Your task to perform on an android device: Search for "lg ultragear" on target.com, select the first entry, add it to the cart, then select checkout. Image 0: 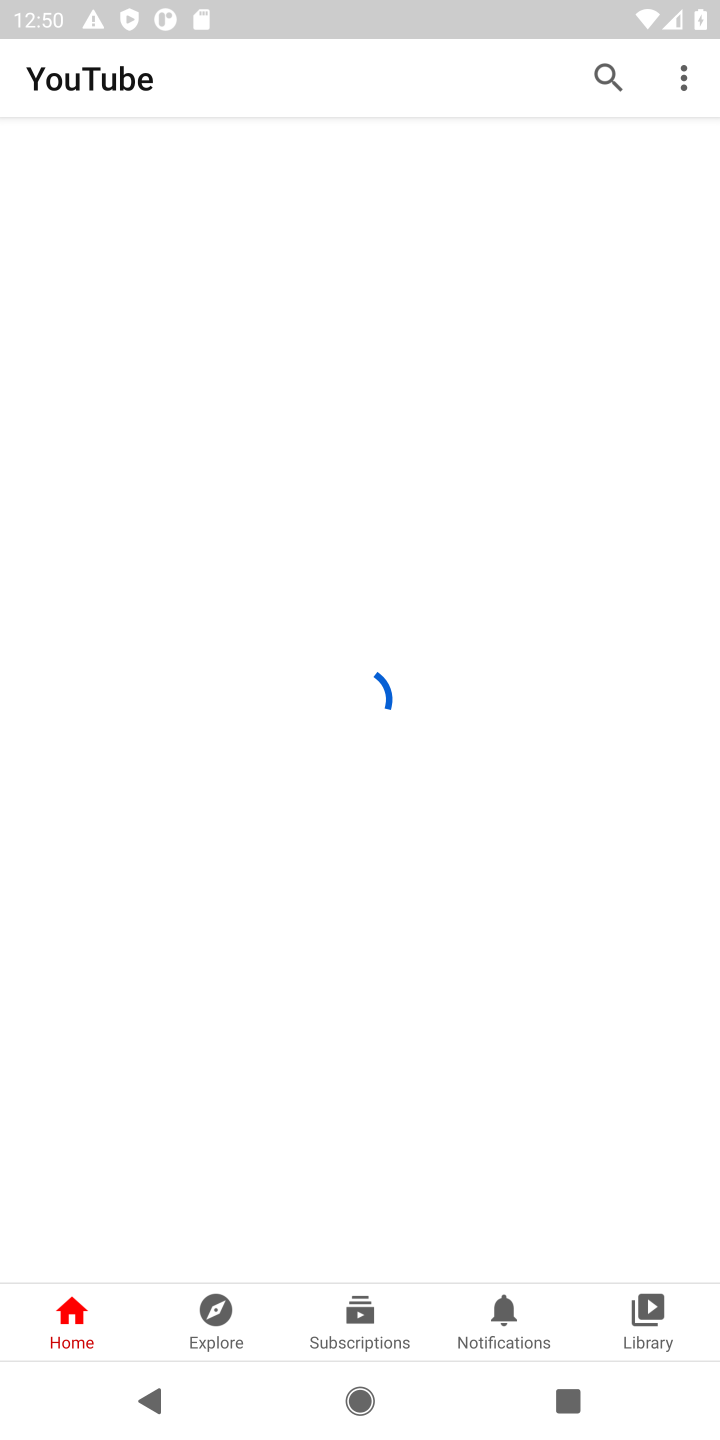
Step 0: press home button
Your task to perform on an android device: Search for "lg ultragear" on target.com, select the first entry, add it to the cart, then select checkout. Image 1: 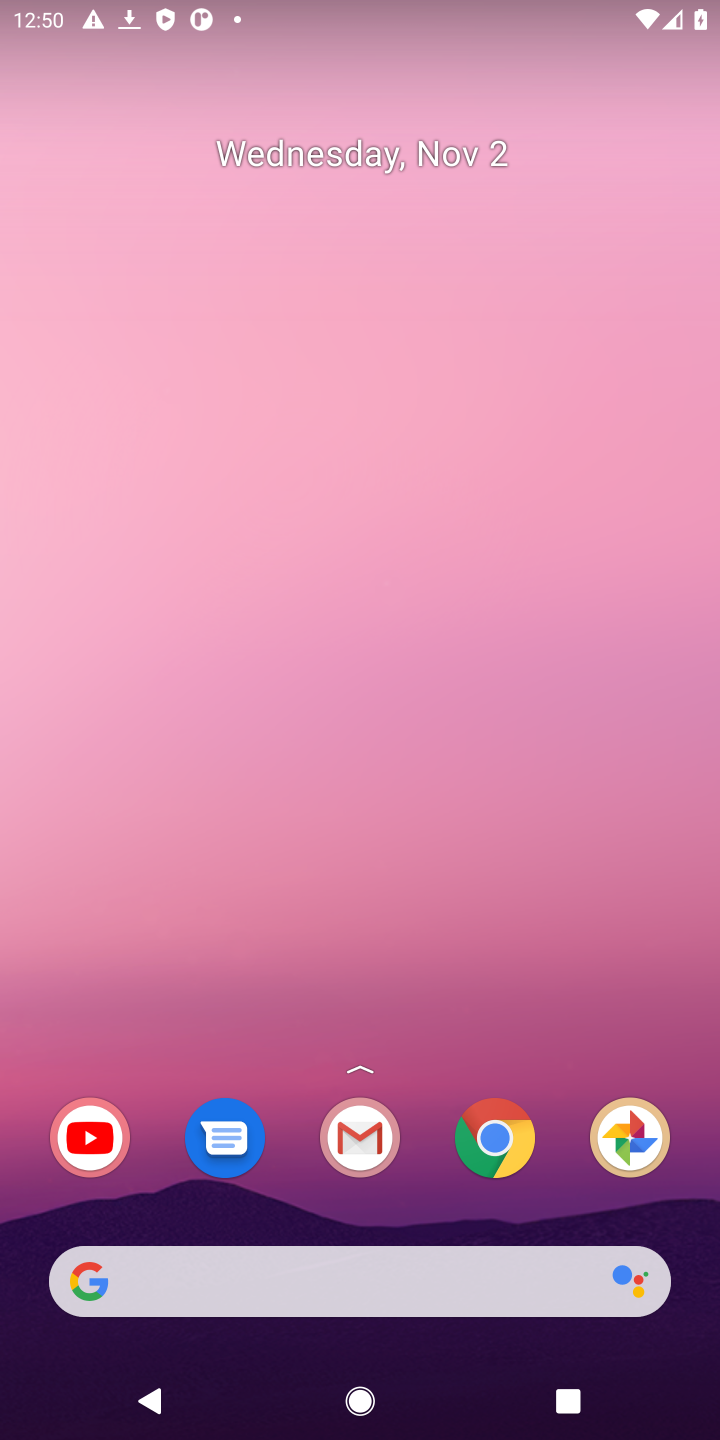
Step 1: press home button
Your task to perform on an android device: Search for "lg ultragear" on target.com, select the first entry, add it to the cart, then select checkout. Image 2: 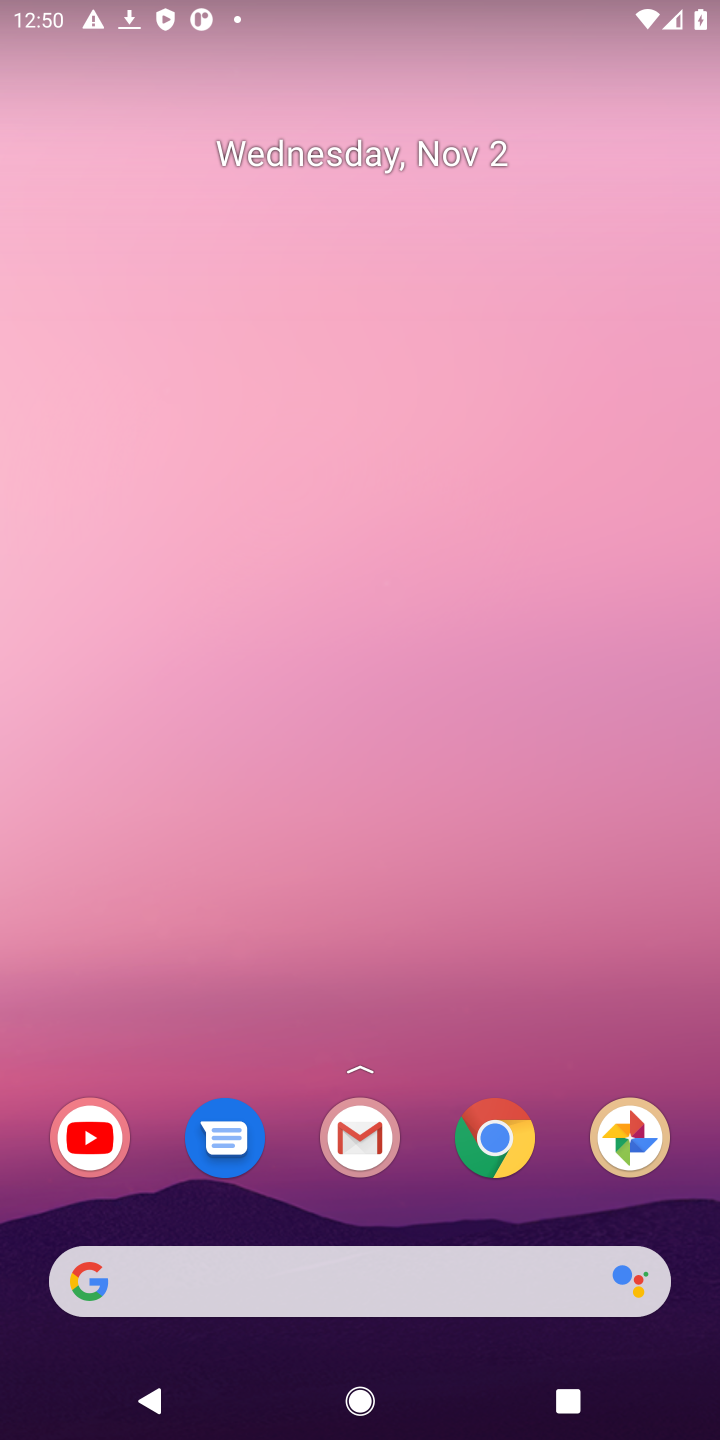
Step 2: click (134, 1281)
Your task to perform on an android device: Search for "lg ultragear" on target.com, select the first entry, add it to the cart, then select checkout. Image 3: 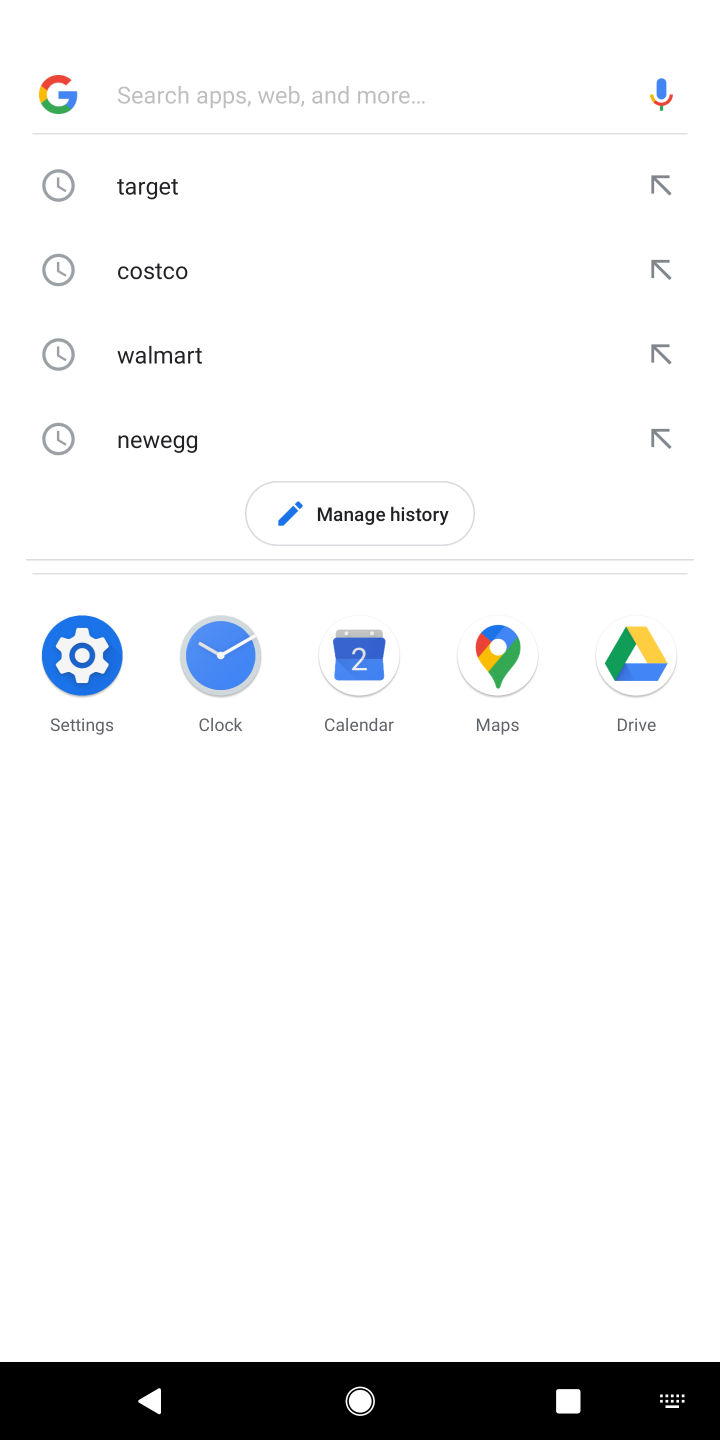
Step 3: type "target.com"
Your task to perform on an android device: Search for "lg ultragear" on target.com, select the first entry, add it to the cart, then select checkout. Image 4: 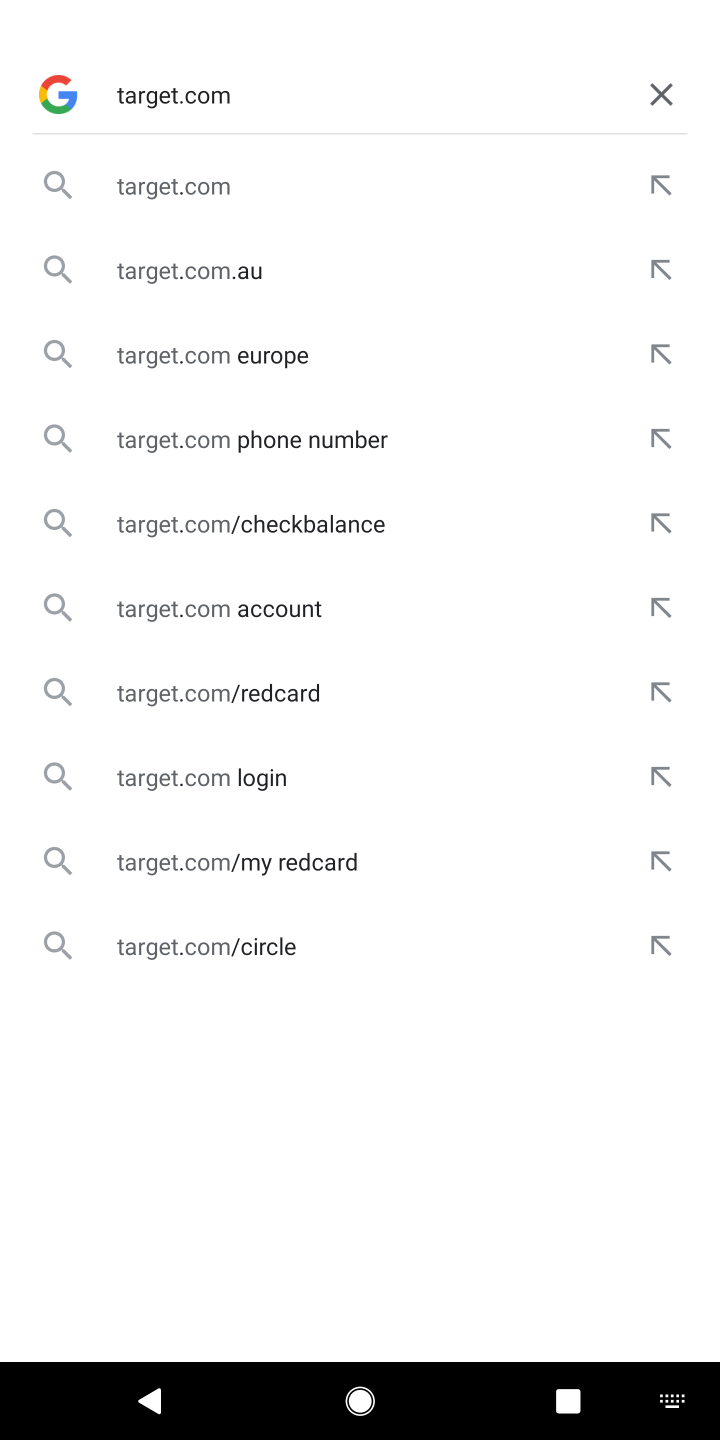
Step 4: press enter
Your task to perform on an android device: Search for "lg ultragear" on target.com, select the first entry, add it to the cart, then select checkout. Image 5: 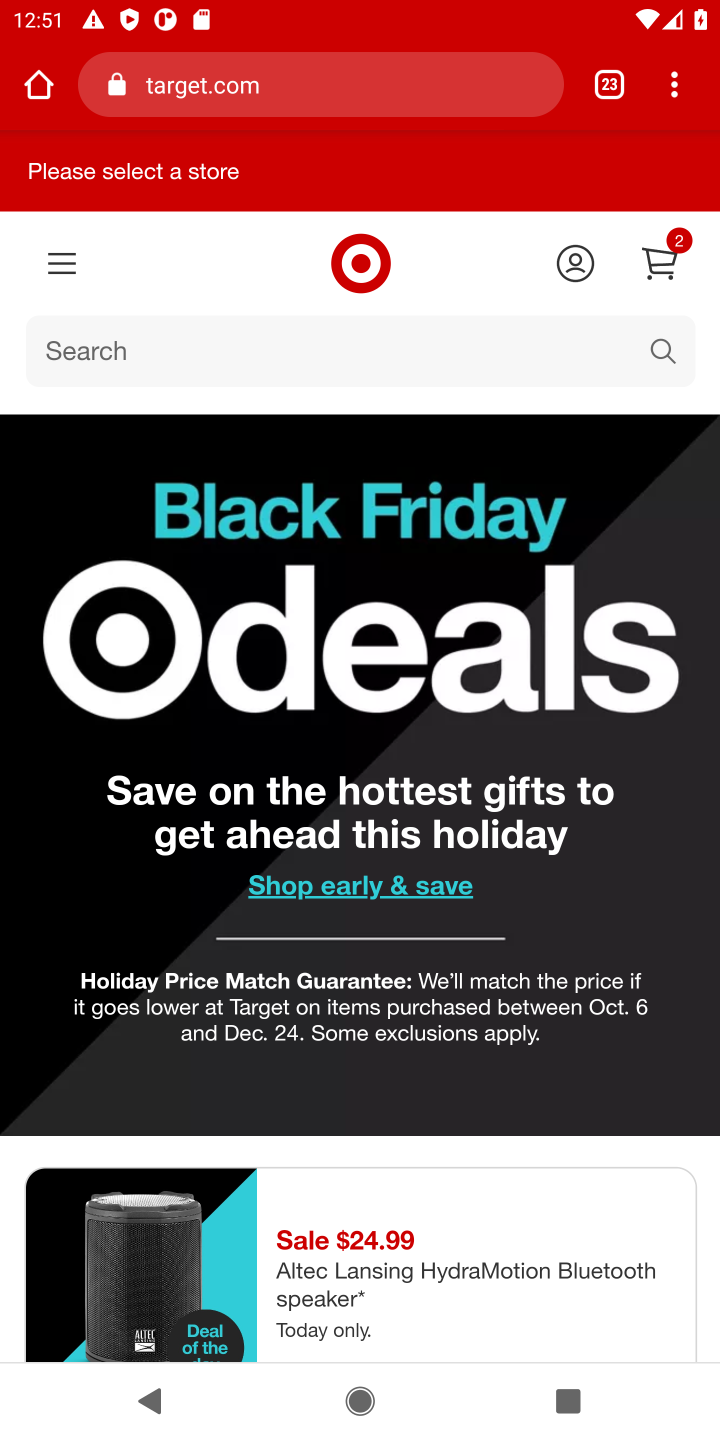
Step 5: click (125, 355)
Your task to perform on an android device: Search for "lg ultragear" on target.com, select the first entry, add it to the cart, then select checkout. Image 6: 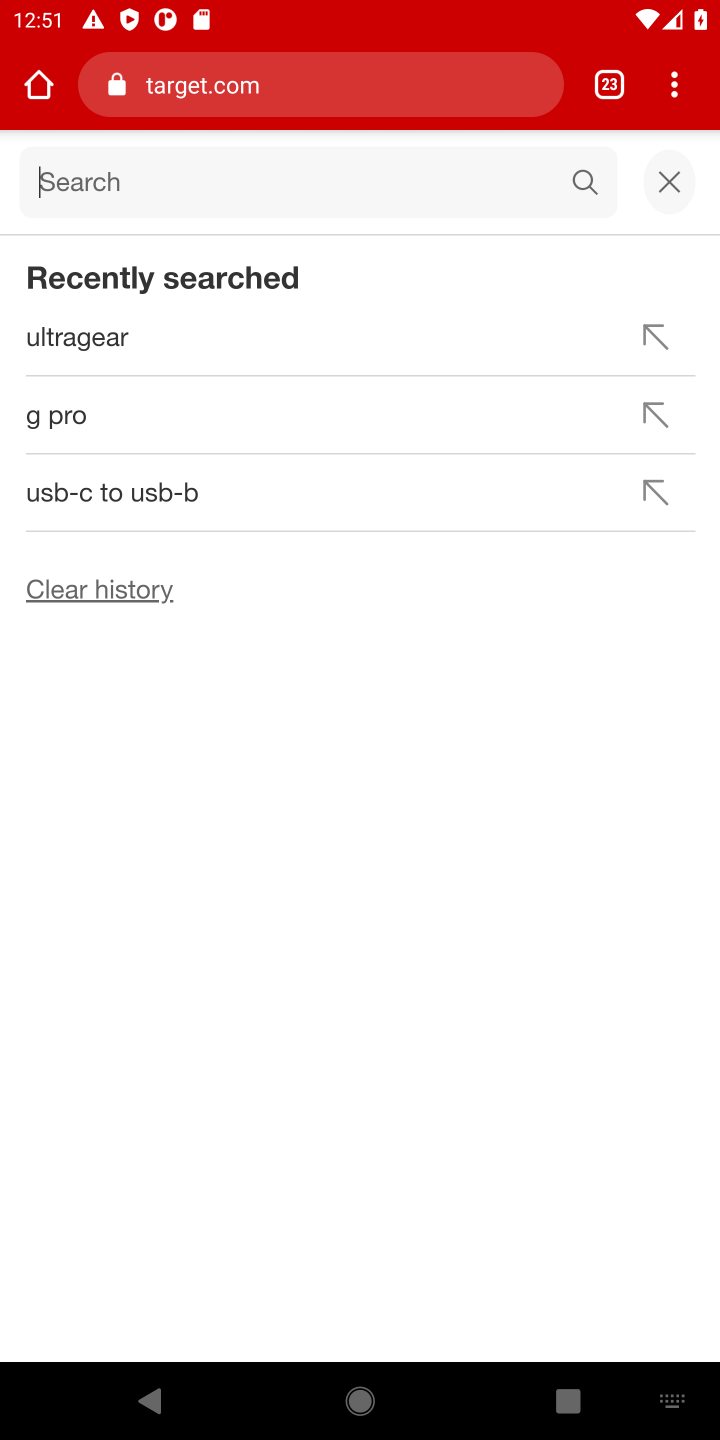
Step 6: type "lg ultragear"
Your task to perform on an android device: Search for "lg ultragear" on target.com, select the first entry, add it to the cart, then select checkout. Image 7: 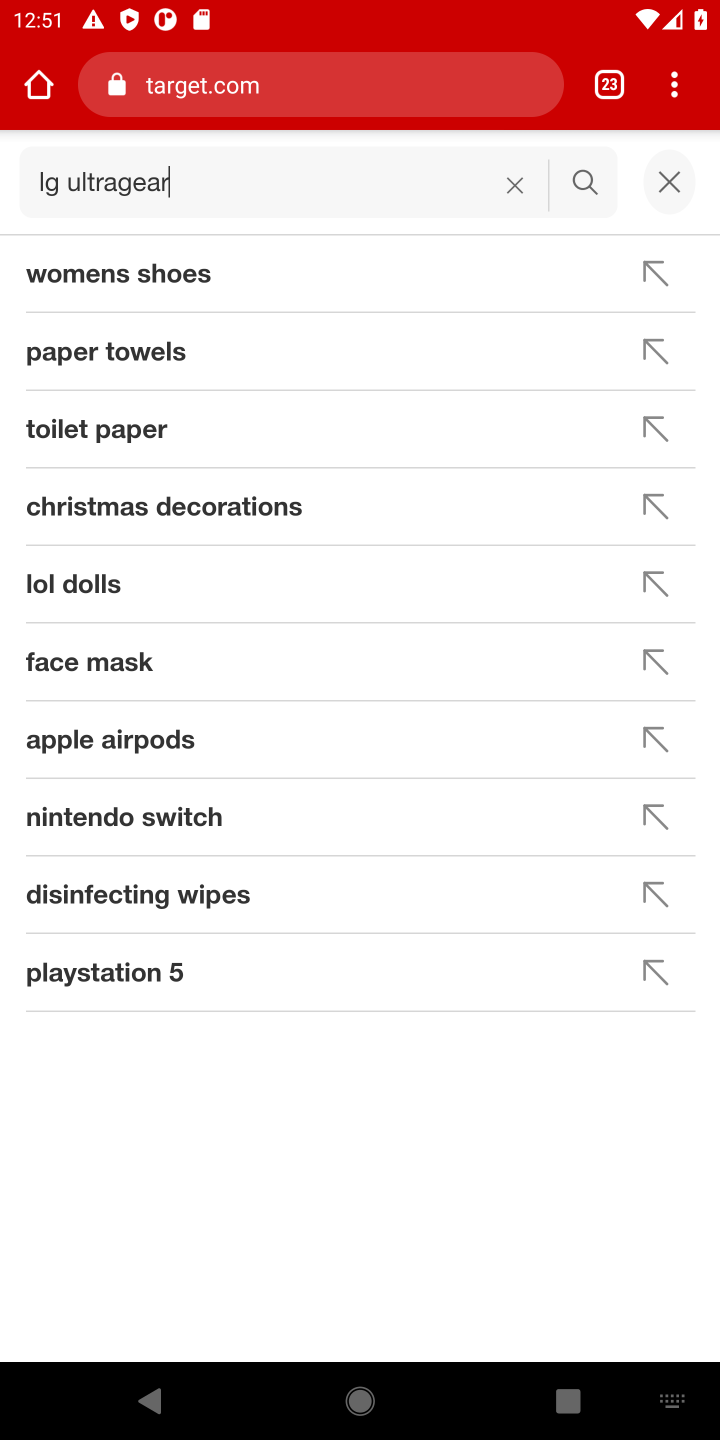
Step 7: press enter
Your task to perform on an android device: Search for "lg ultragear" on target.com, select the first entry, add it to the cart, then select checkout. Image 8: 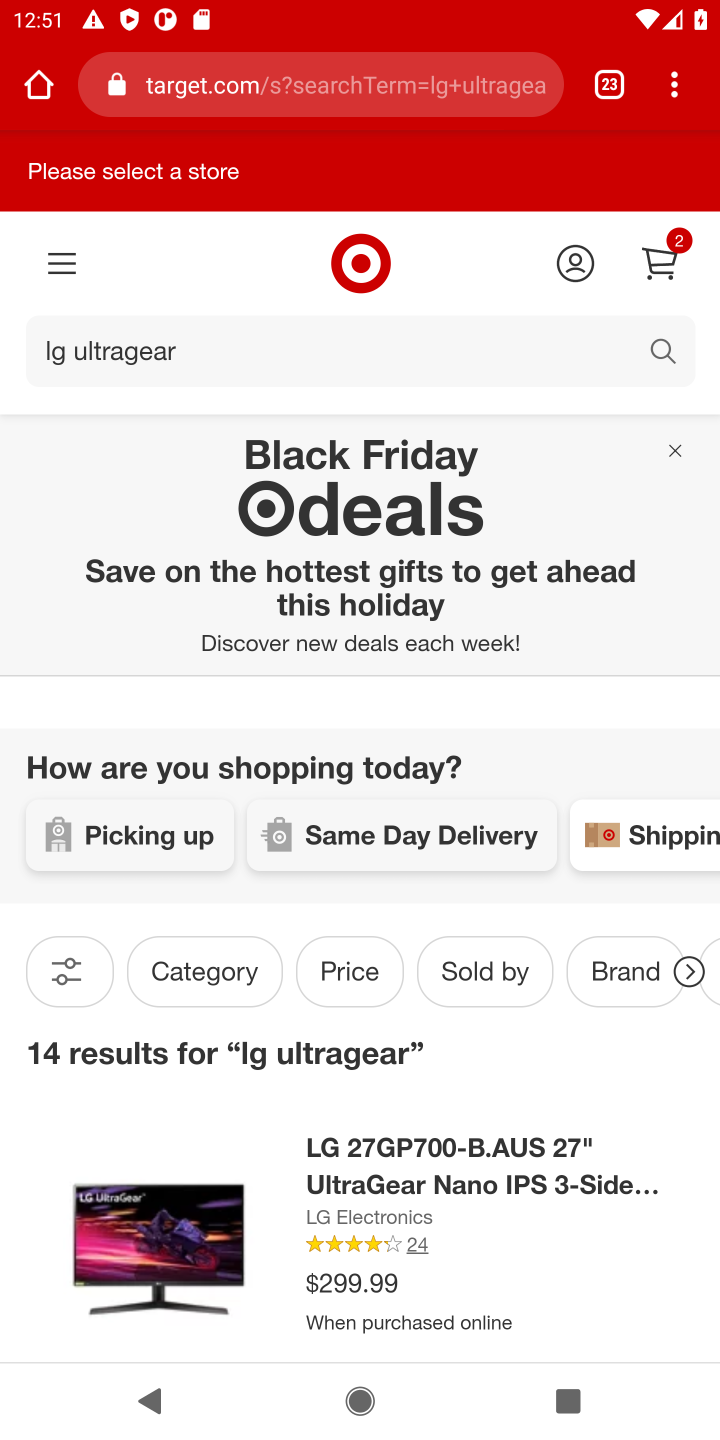
Step 8: drag from (463, 1183) to (453, 693)
Your task to perform on an android device: Search for "lg ultragear" on target.com, select the first entry, add it to the cart, then select checkout. Image 9: 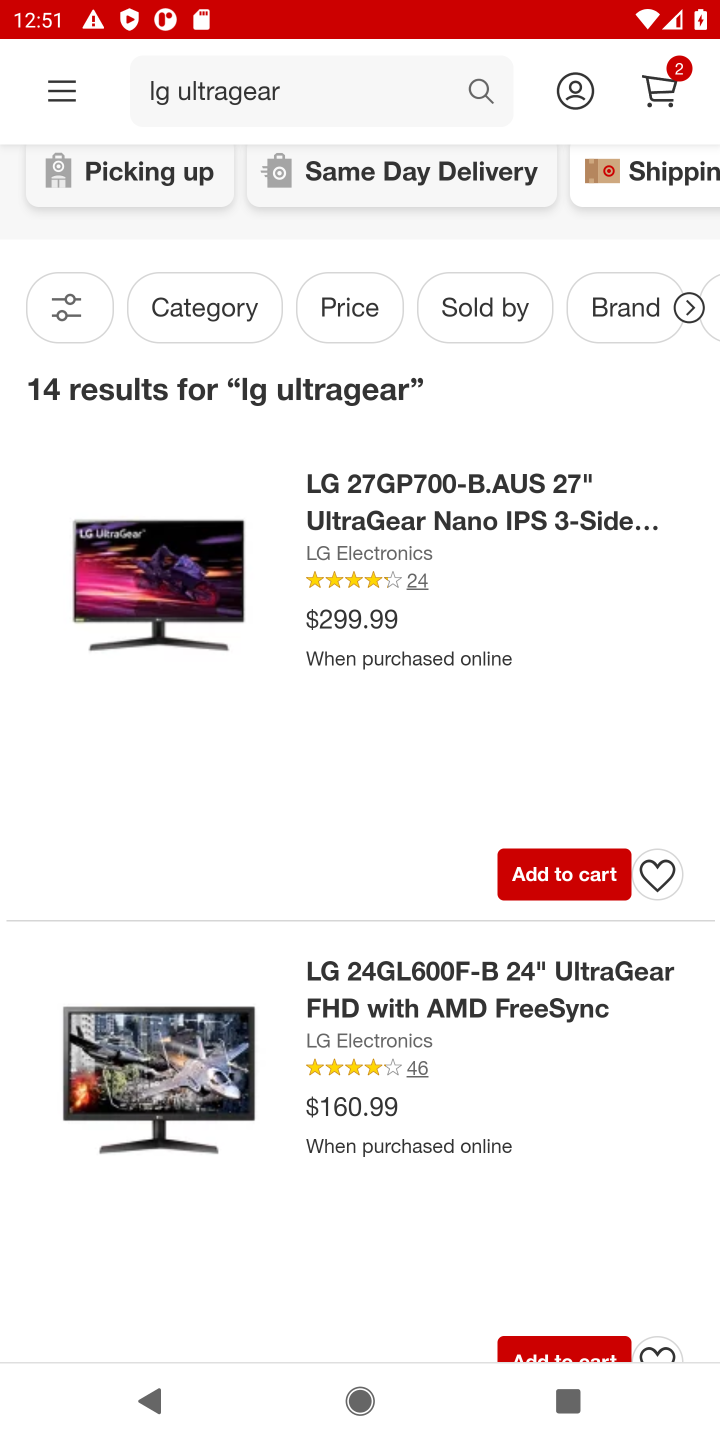
Step 9: drag from (405, 1162) to (403, 847)
Your task to perform on an android device: Search for "lg ultragear" on target.com, select the first entry, add it to the cart, then select checkout. Image 10: 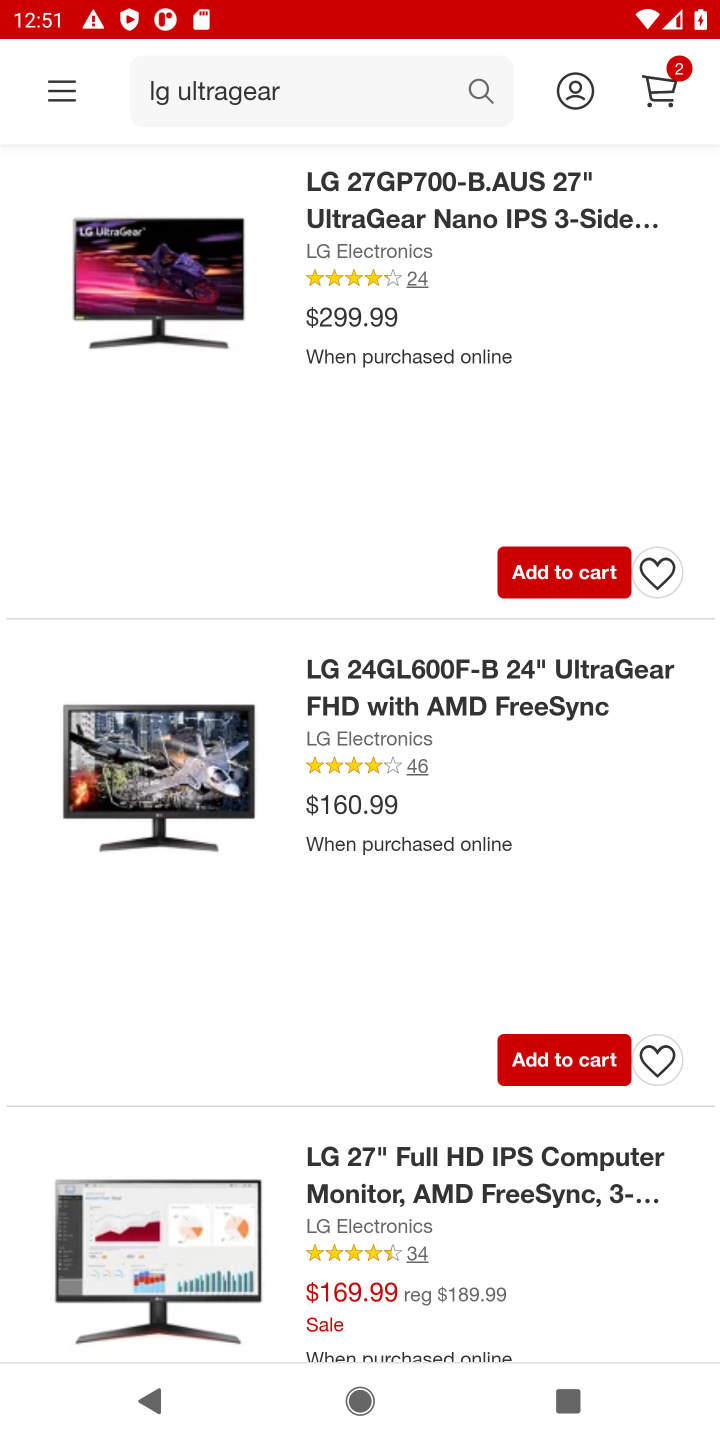
Step 10: click (537, 577)
Your task to perform on an android device: Search for "lg ultragear" on target.com, select the first entry, add it to the cart, then select checkout. Image 11: 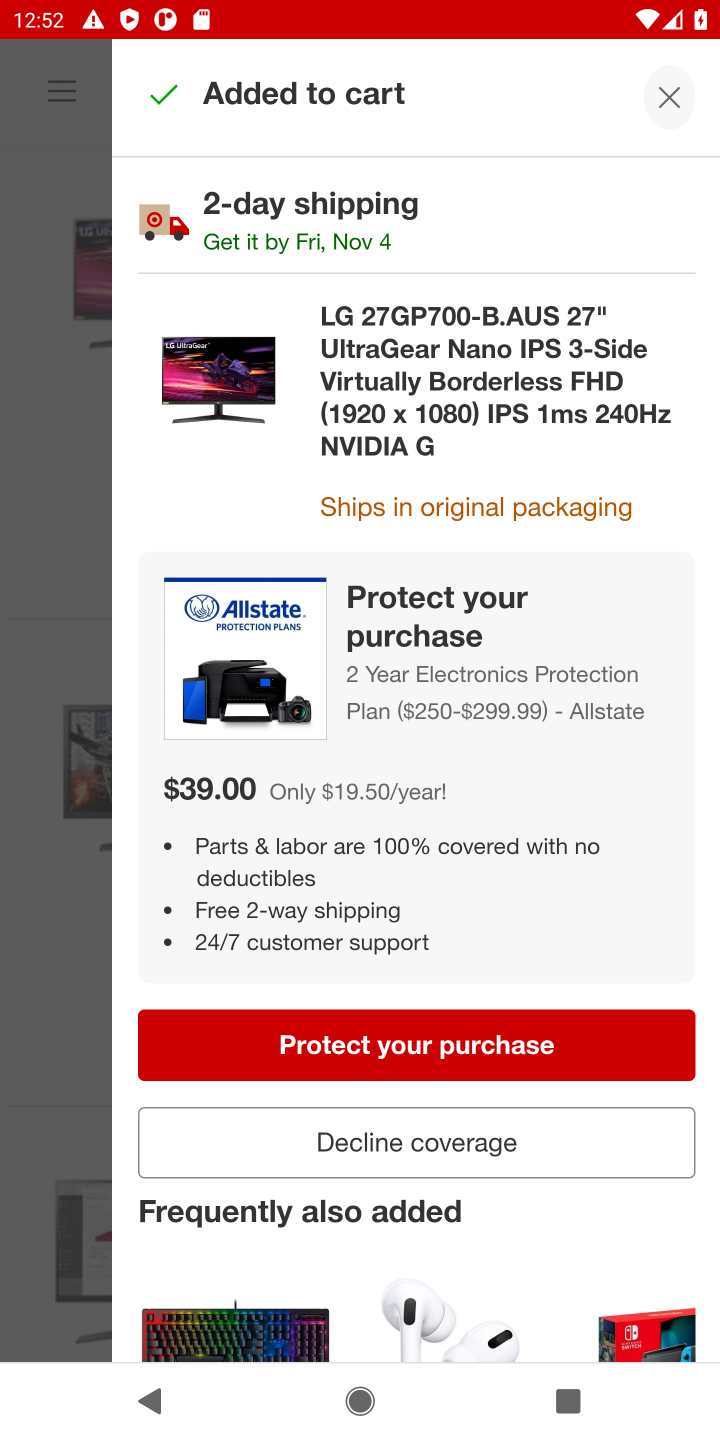
Step 11: click (508, 1049)
Your task to perform on an android device: Search for "lg ultragear" on target.com, select the first entry, add it to the cart, then select checkout. Image 12: 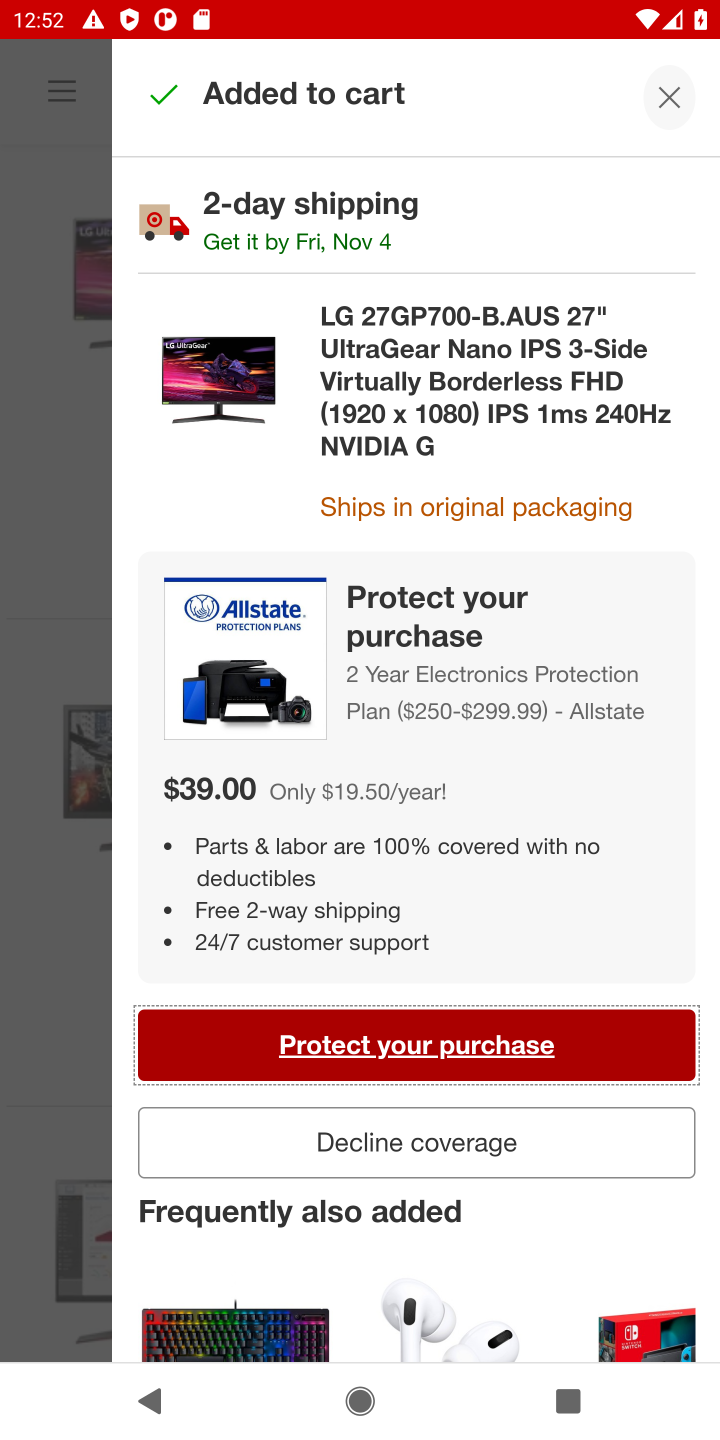
Step 12: click (508, 1049)
Your task to perform on an android device: Search for "lg ultragear" on target.com, select the first entry, add it to the cart, then select checkout. Image 13: 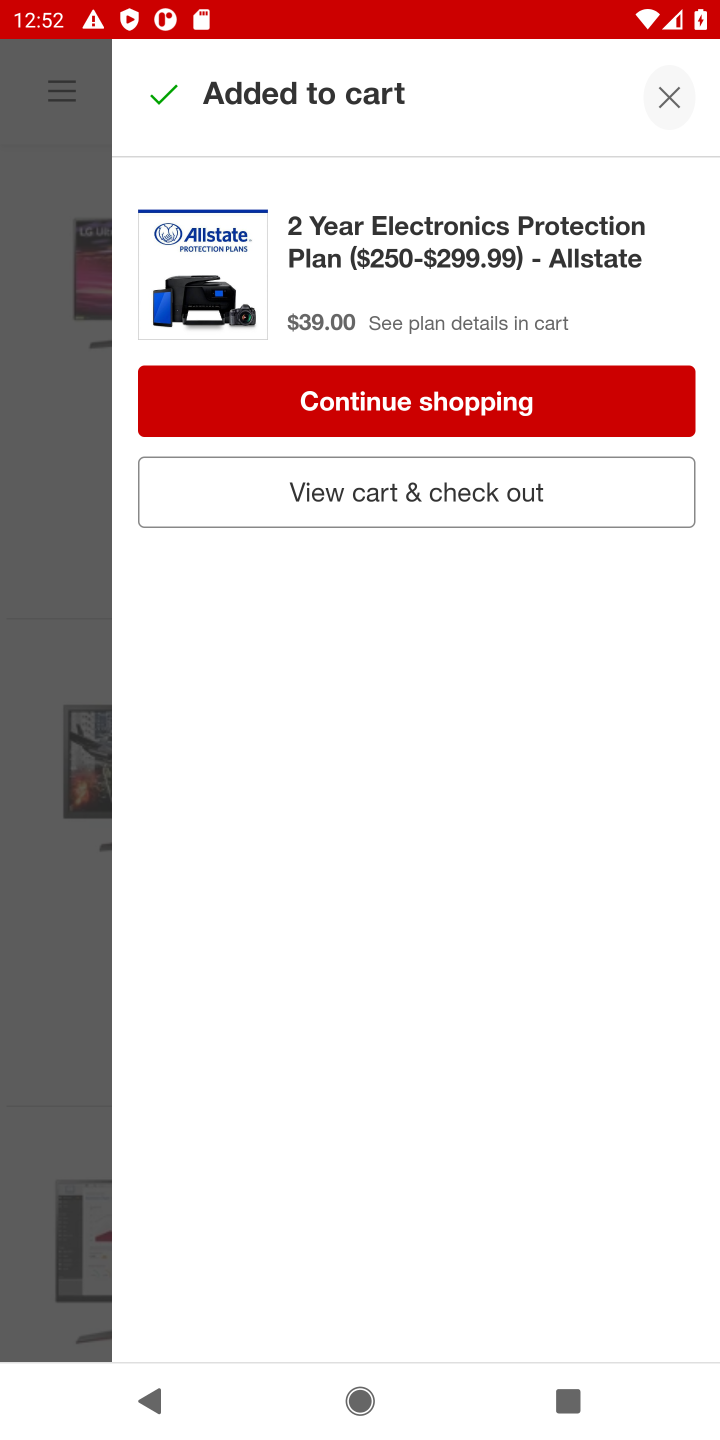
Step 13: click (492, 485)
Your task to perform on an android device: Search for "lg ultragear" on target.com, select the first entry, add it to the cart, then select checkout. Image 14: 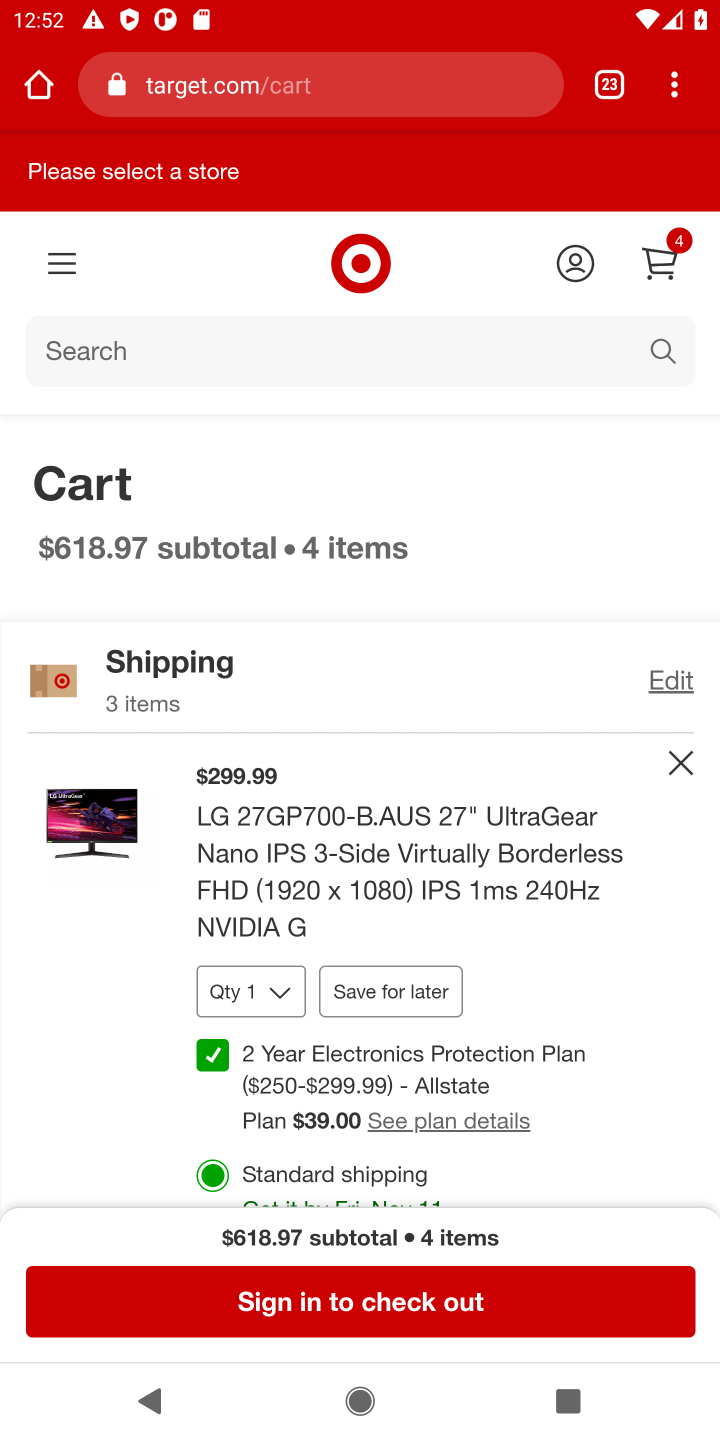
Step 14: click (440, 1307)
Your task to perform on an android device: Search for "lg ultragear" on target.com, select the first entry, add it to the cart, then select checkout. Image 15: 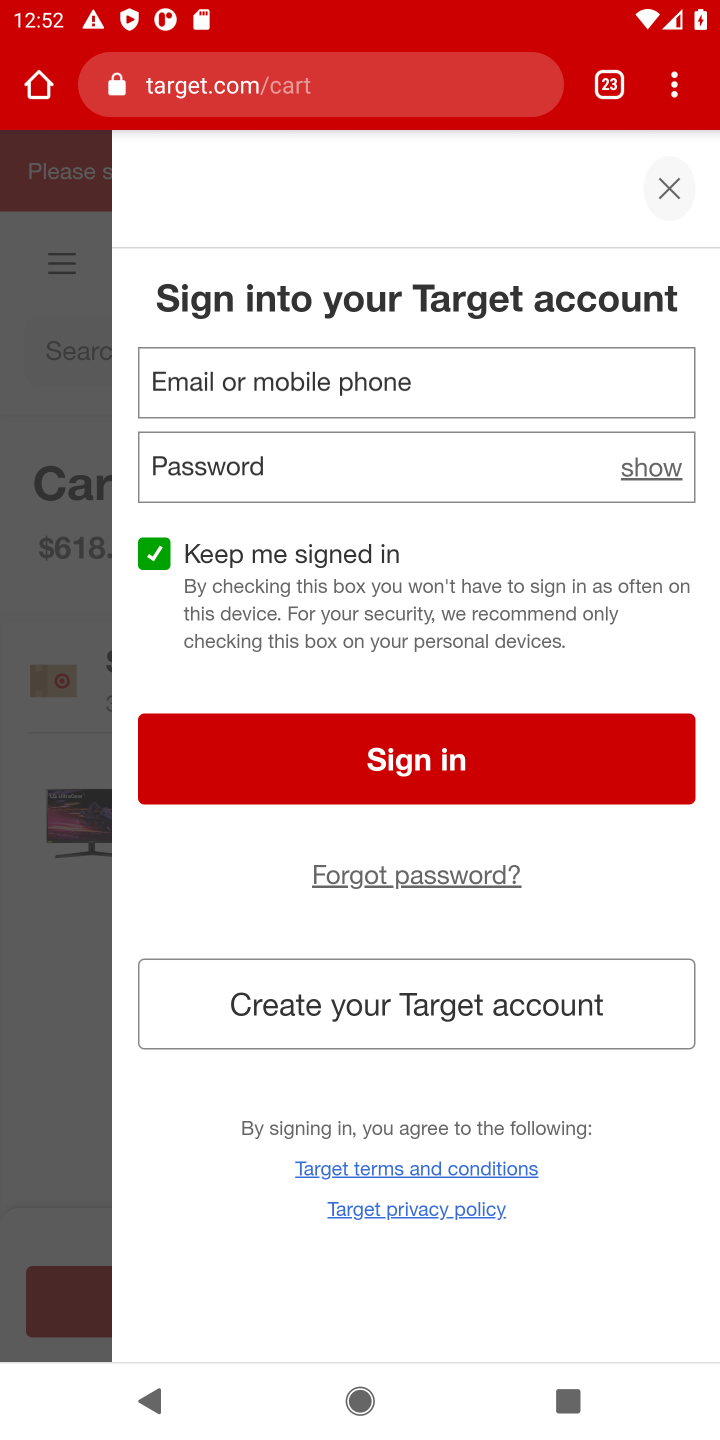
Step 15: task complete